Your task to perform on an android device: Go to eBay Image 0: 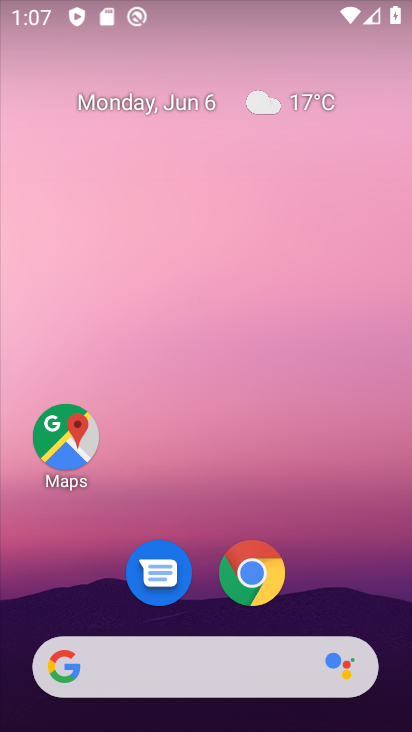
Step 0: drag from (326, 583) to (355, 167)
Your task to perform on an android device: Go to eBay Image 1: 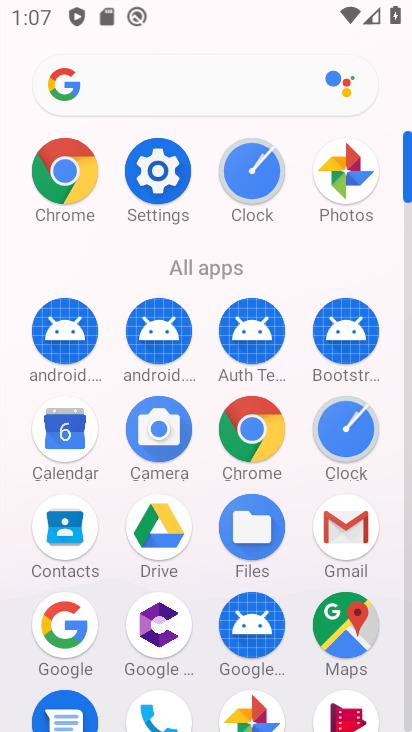
Step 1: click (257, 432)
Your task to perform on an android device: Go to eBay Image 2: 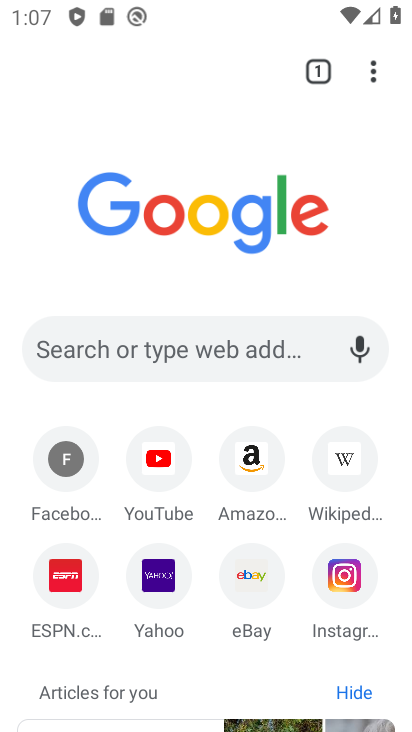
Step 2: click (256, 575)
Your task to perform on an android device: Go to eBay Image 3: 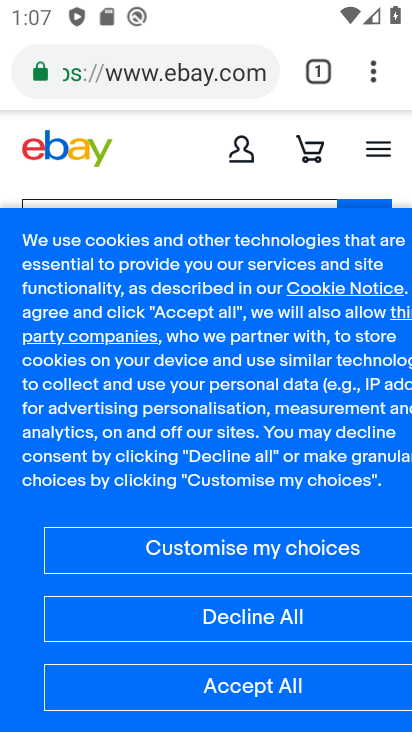
Step 3: task complete